Your task to perform on an android device: Open Google Chrome Image 0: 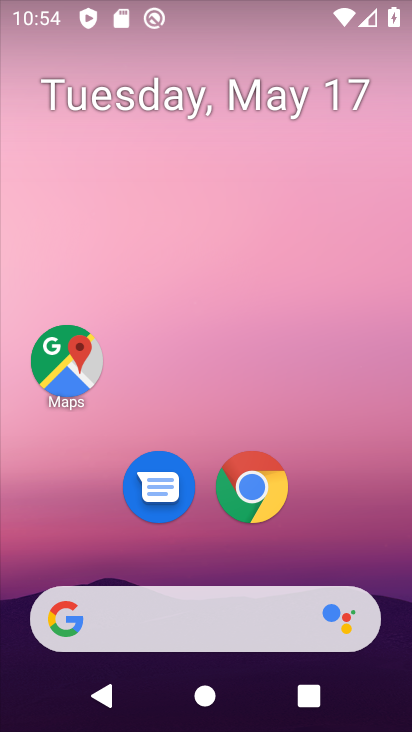
Step 0: press home button
Your task to perform on an android device: Open Google Chrome Image 1: 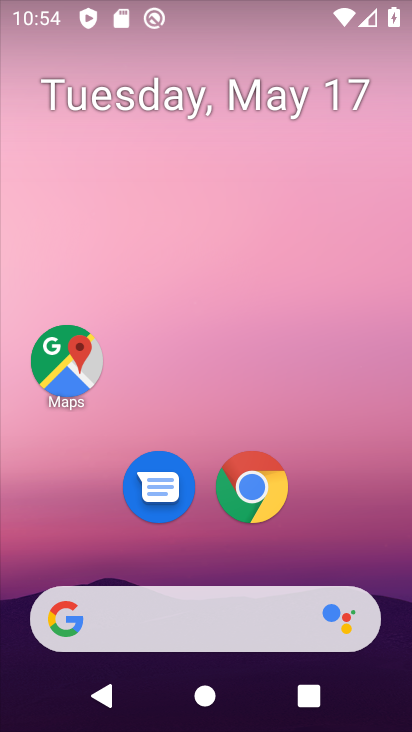
Step 1: press home button
Your task to perform on an android device: Open Google Chrome Image 2: 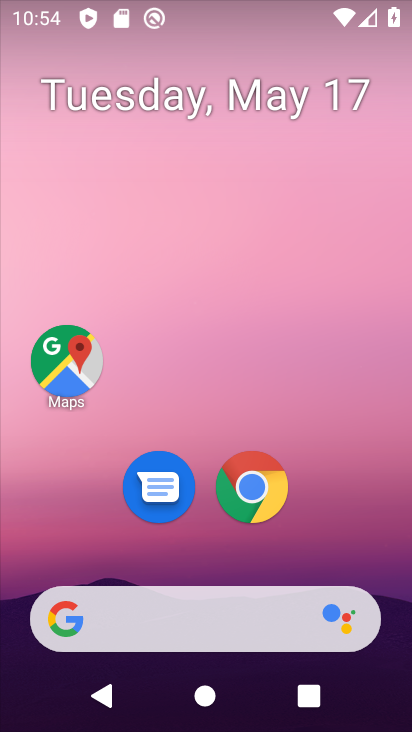
Step 2: click (240, 496)
Your task to perform on an android device: Open Google Chrome Image 3: 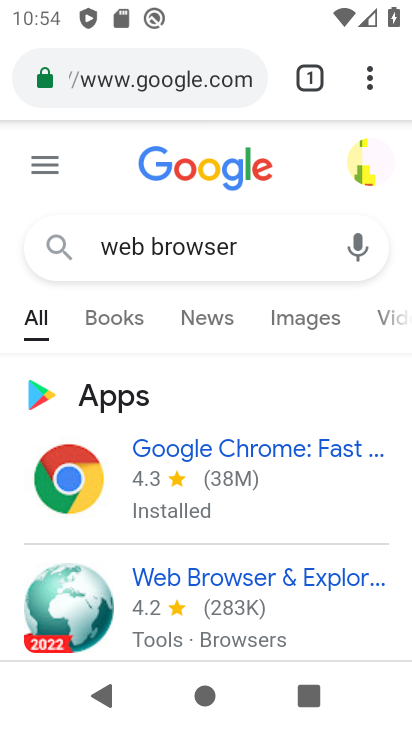
Step 3: task complete